Your task to perform on an android device: Go to calendar. Show me events next week Image 0: 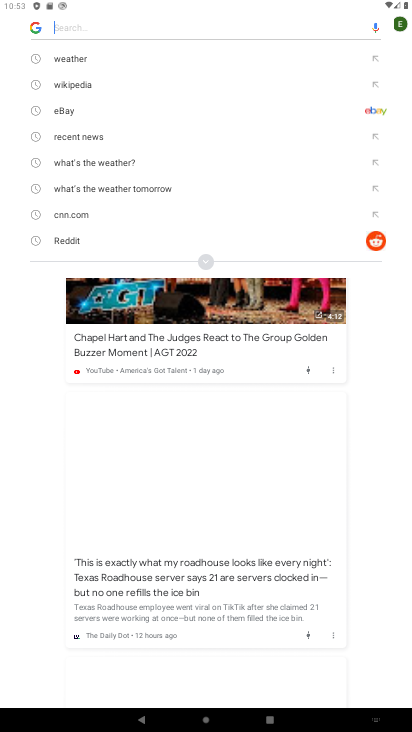
Step 0: press home button
Your task to perform on an android device: Go to calendar. Show me events next week Image 1: 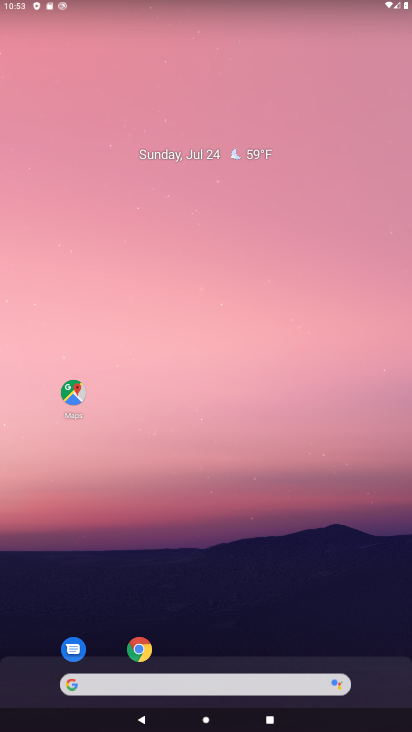
Step 1: drag from (213, 594) to (376, 524)
Your task to perform on an android device: Go to calendar. Show me events next week Image 2: 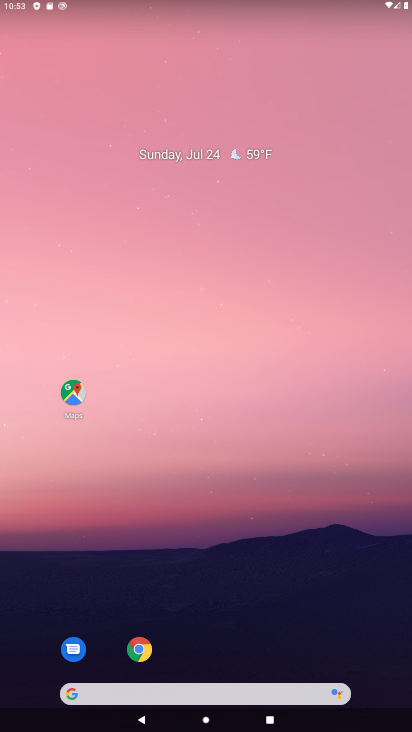
Step 2: drag from (351, 652) to (210, 20)
Your task to perform on an android device: Go to calendar. Show me events next week Image 3: 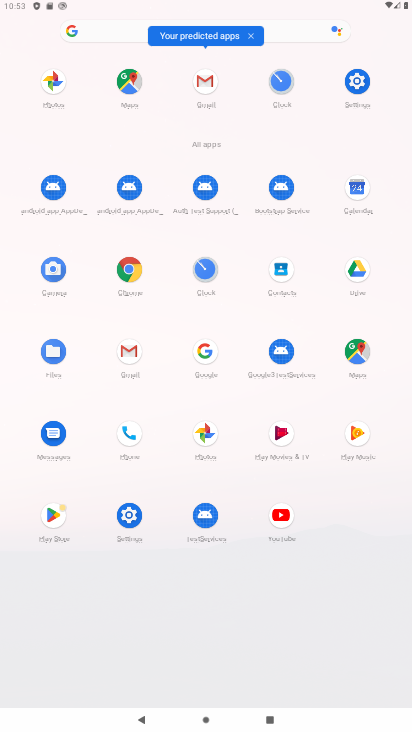
Step 3: click (364, 182)
Your task to perform on an android device: Go to calendar. Show me events next week Image 4: 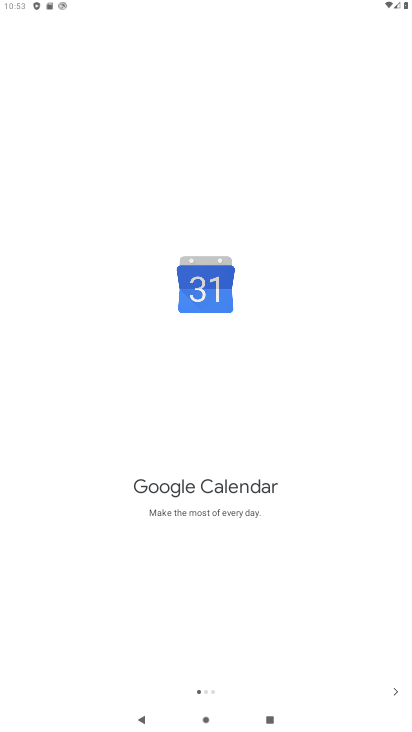
Step 4: click (400, 690)
Your task to perform on an android device: Go to calendar. Show me events next week Image 5: 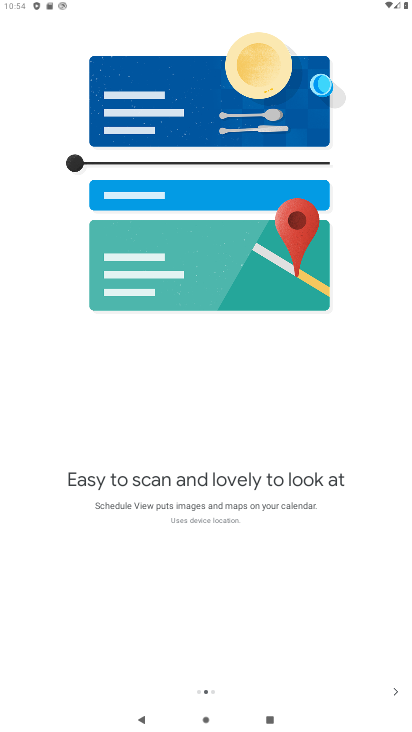
Step 5: click (400, 690)
Your task to perform on an android device: Go to calendar. Show me events next week Image 6: 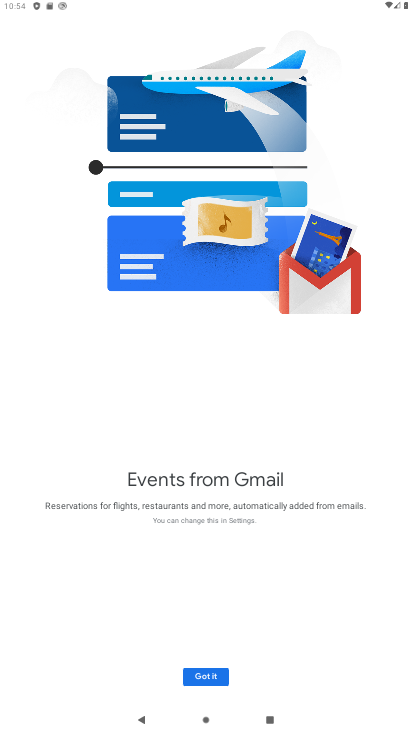
Step 6: click (209, 674)
Your task to perform on an android device: Go to calendar. Show me events next week Image 7: 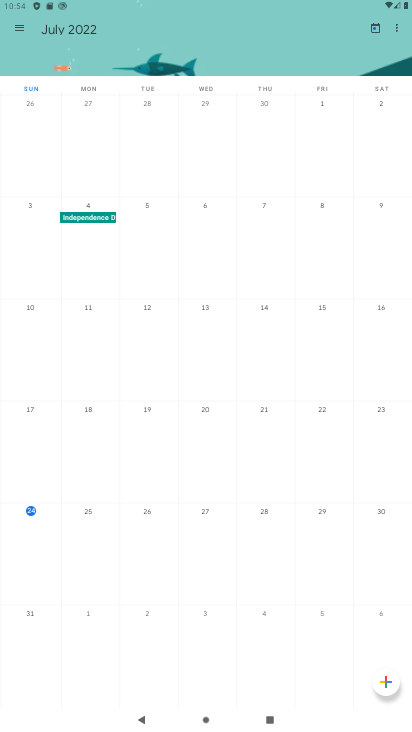
Step 7: click (19, 28)
Your task to perform on an android device: Go to calendar. Show me events next week Image 8: 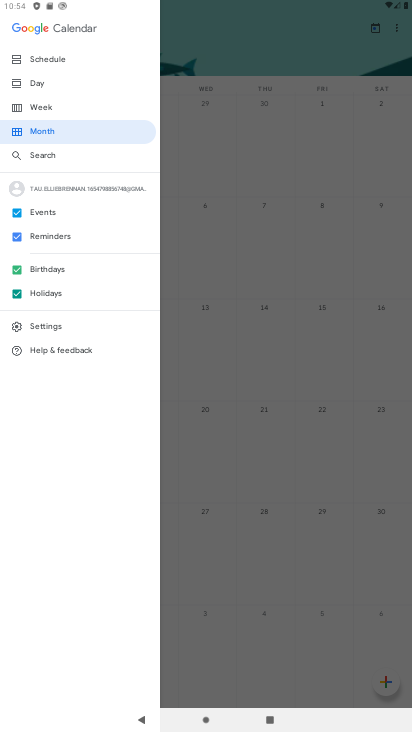
Step 8: click (60, 108)
Your task to perform on an android device: Go to calendar. Show me events next week Image 9: 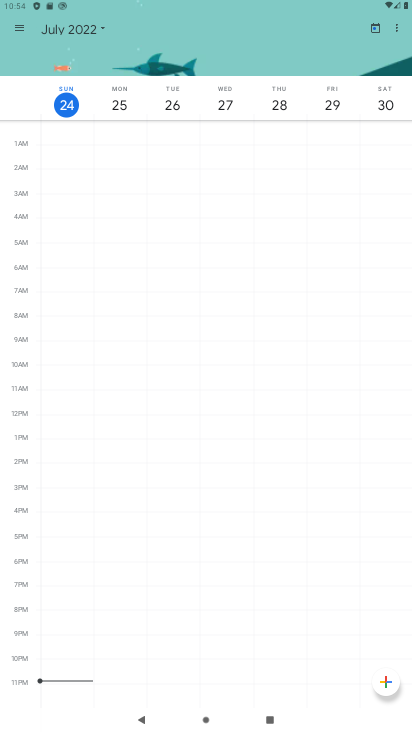
Step 9: click (97, 23)
Your task to perform on an android device: Go to calendar. Show me events next week Image 10: 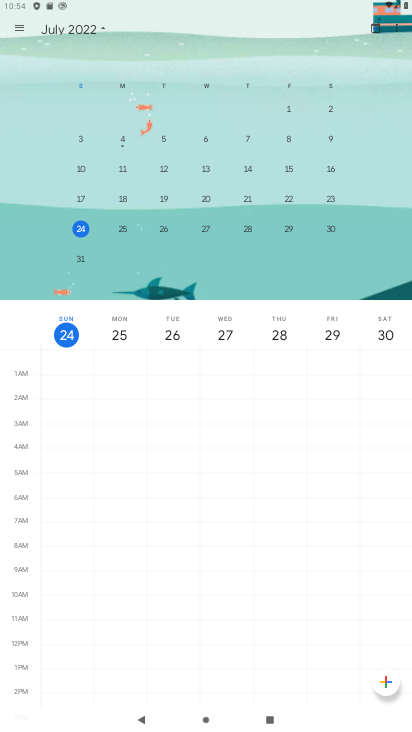
Step 10: drag from (297, 185) to (2, 173)
Your task to perform on an android device: Go to calendar. Show me events next week Image 11: 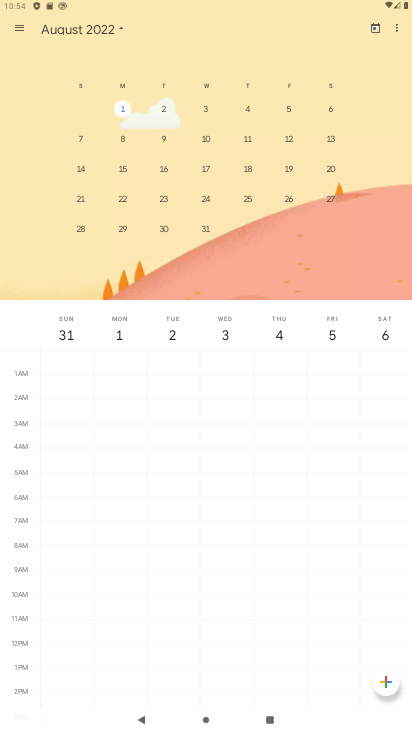
Step 11: click (249, 108)
Your task to perform on an android device: Go to calendar. Show me events next week Image 12: 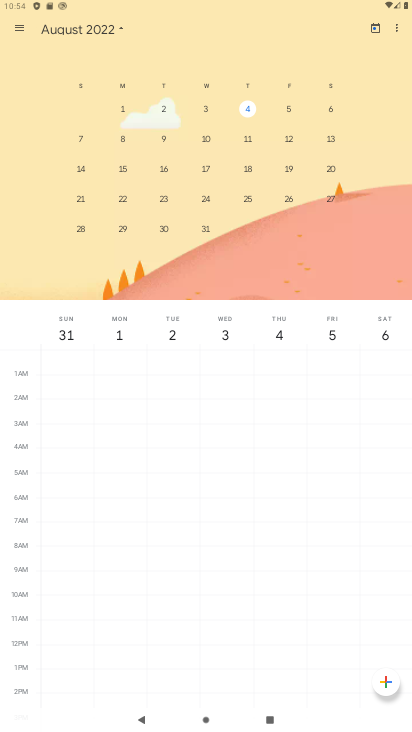
Step 12: task complete